Your task to perform on an android device: Search for sony triple a on newegg, select the first entry, and add it to the cart. Image 0: 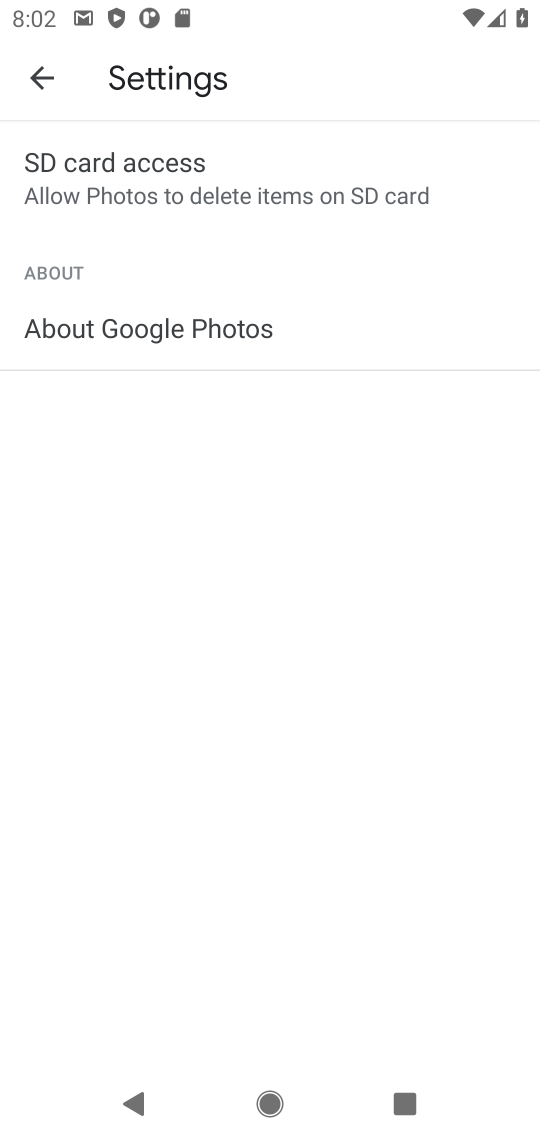
Step 0: click (365, 893)
Your task to perform on an android device: Search for sony triple a on newegg, select the first entry, and add it to the cart. Image 1: 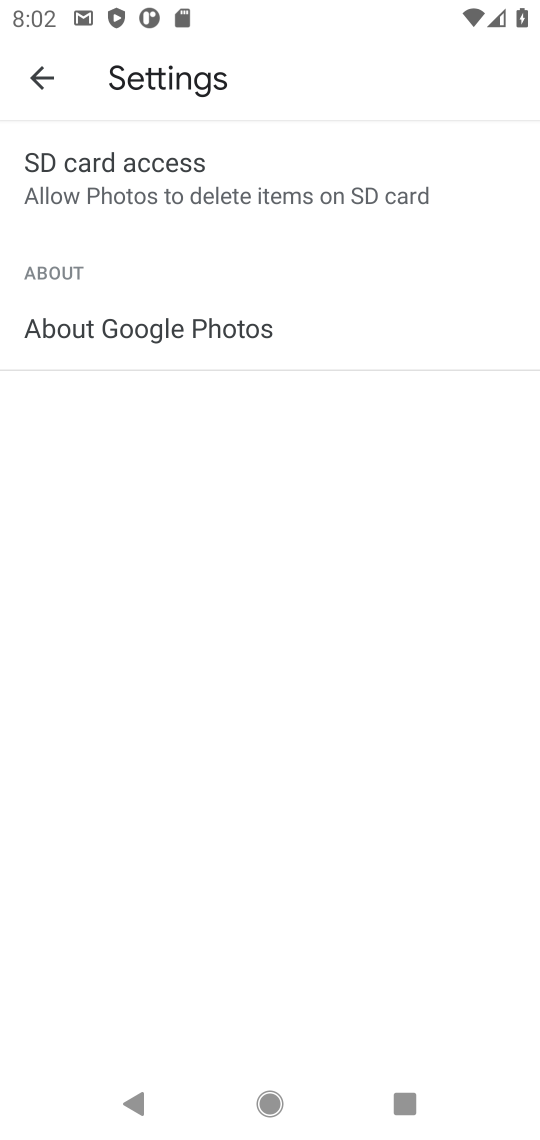
Step 1: press home button
Your task to perform on an android device: Search for sony triple a on newegg, select the first entry, and add it to the cart. Image 2: 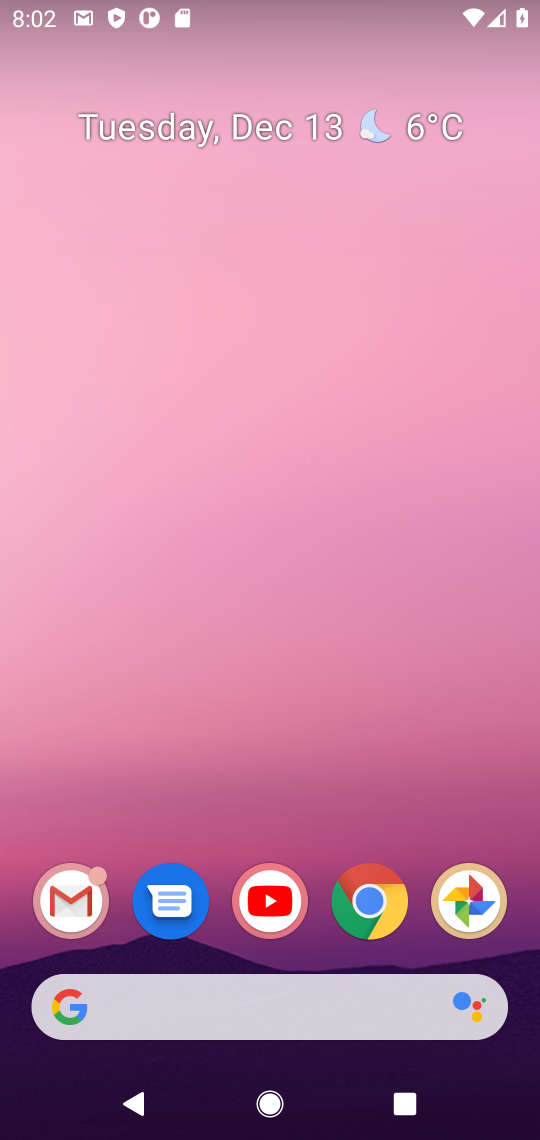
Step 2: click (374, 906)
Your task to perform on an android device: Search for sony triple a on newegg, select the first entry, and add it to the cart. Image 3: 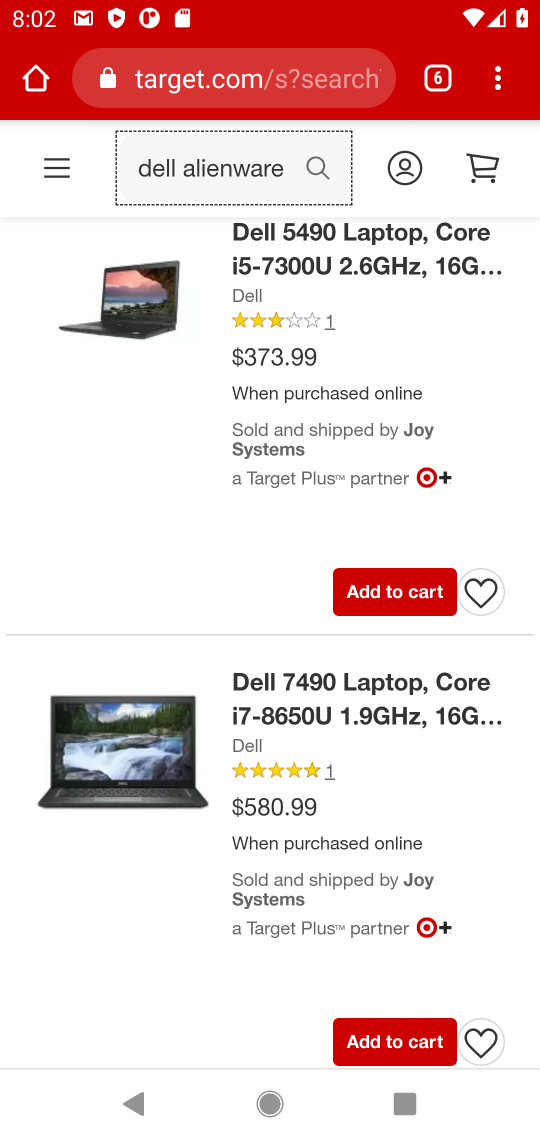
Step 3: click (428, 91)
Your task to perform on an android device: Search for sony triple a on newegg, select the first entry, and add it to the cart. Image 4: 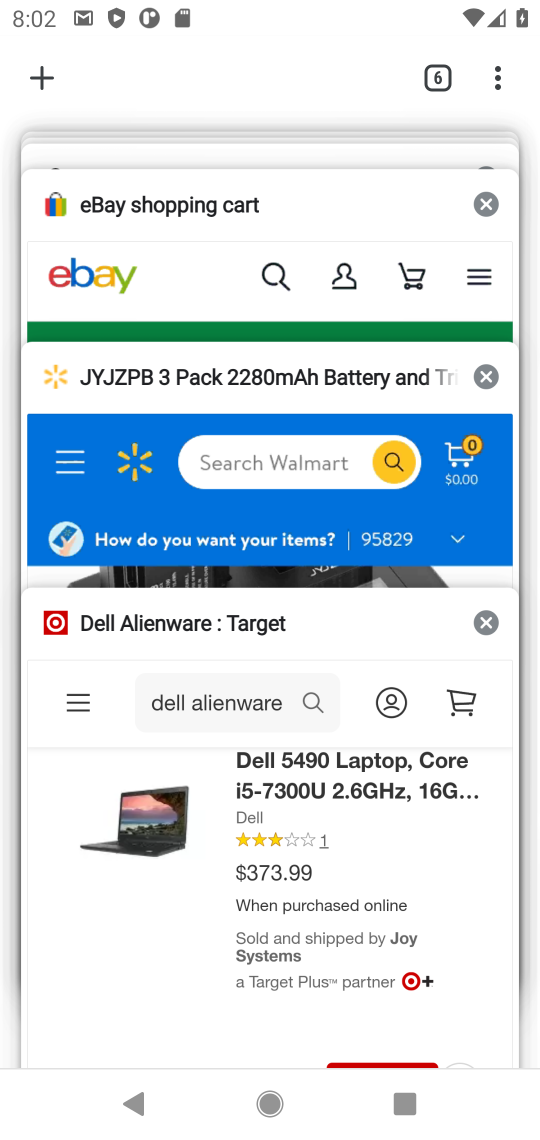
Step 4: drag from (247, 152) to (153, 401)
Your task to perform on an android device: Search for sony triple a on newegg, select the first entry, and add it to the cart. Image 5: 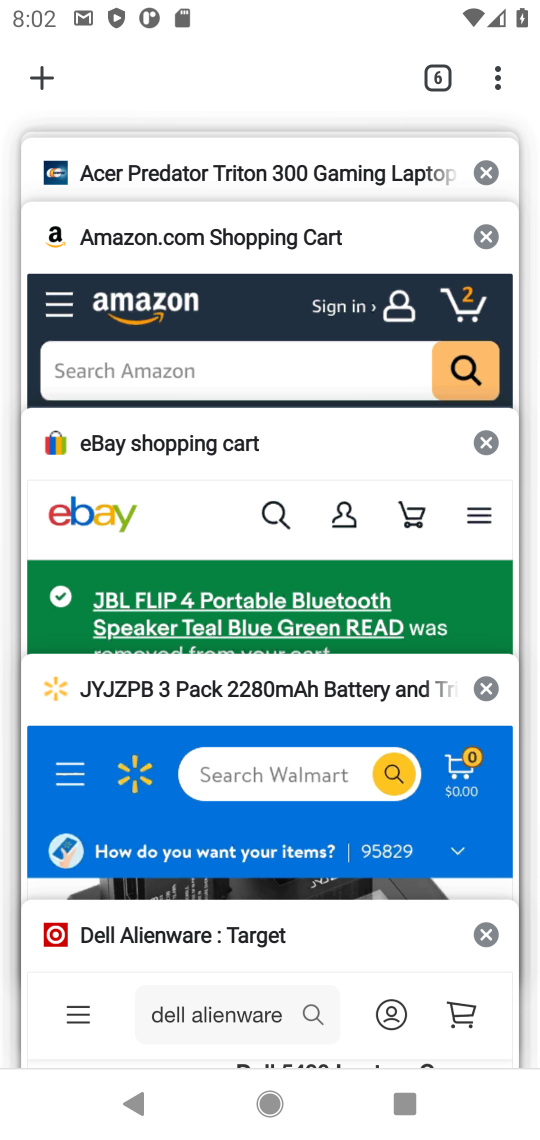
Step 5: click (280, 172)
Your task to perform on an android device: Search for sony triple a on newegg, select the first entry, and add it to the cart. Image 6: 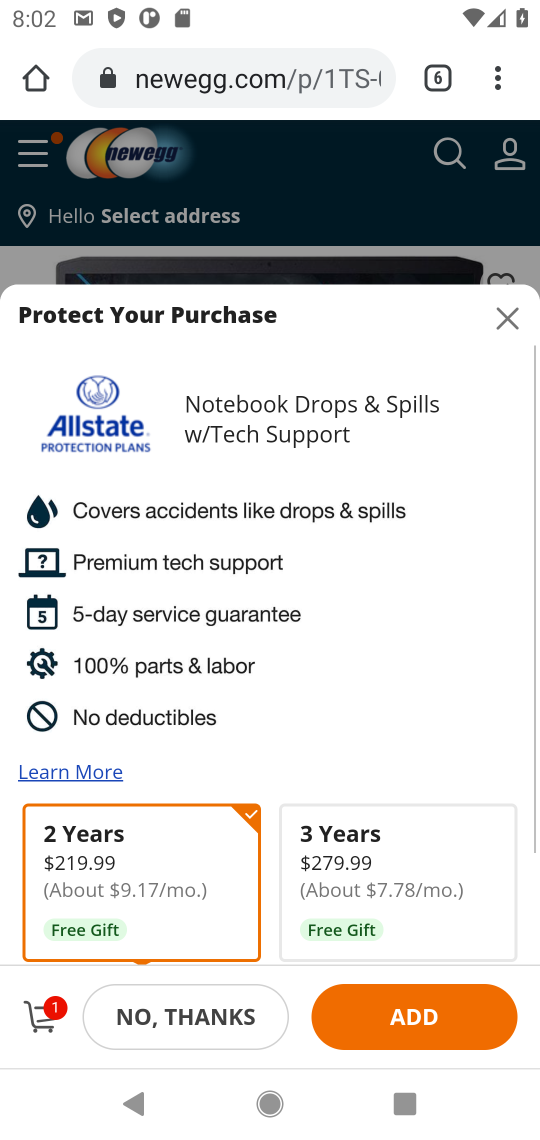
Step 6: click (180, 1021)
Your task to perform on an android device: Search for sony triple a on newegg, select the first entry, and add it to the cart. Image 7: 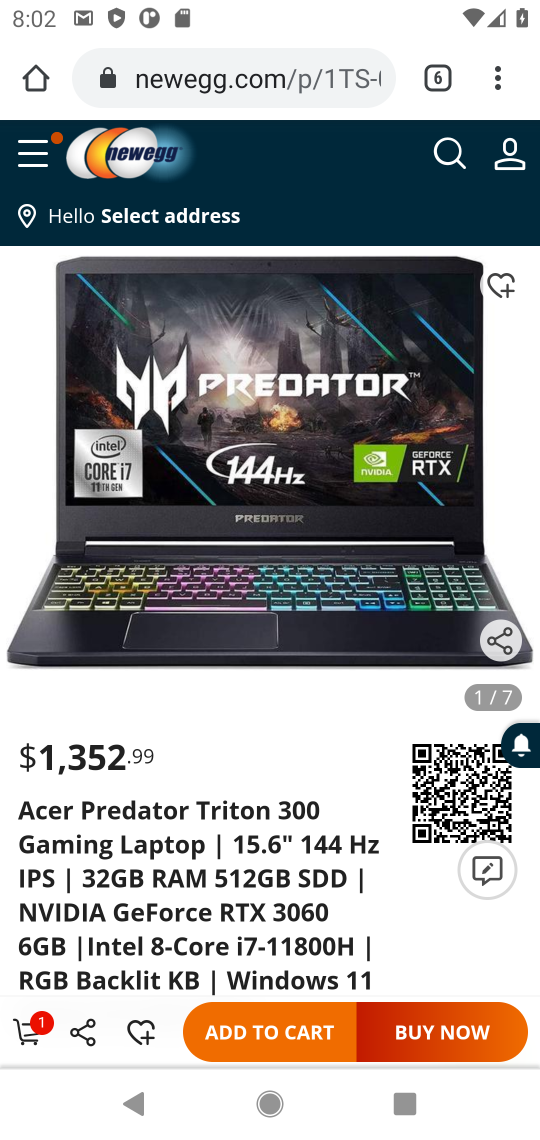
Step 7: click (450, 155)
Your task to perform on an android device: Search for sony triple a on newegg, select the first entry, and add it to the cart. Image 8: 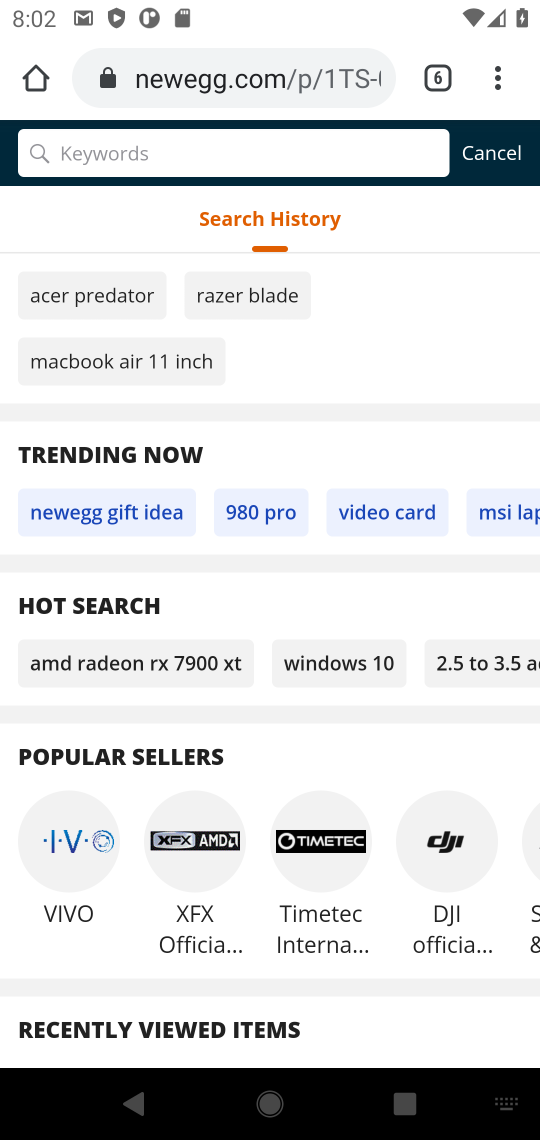
Step 8: type "sony triple a batteries"
Your task to perform on an android device: Search for sony triple a on newegg, select the first entry, and add it to the cart. Image 9: 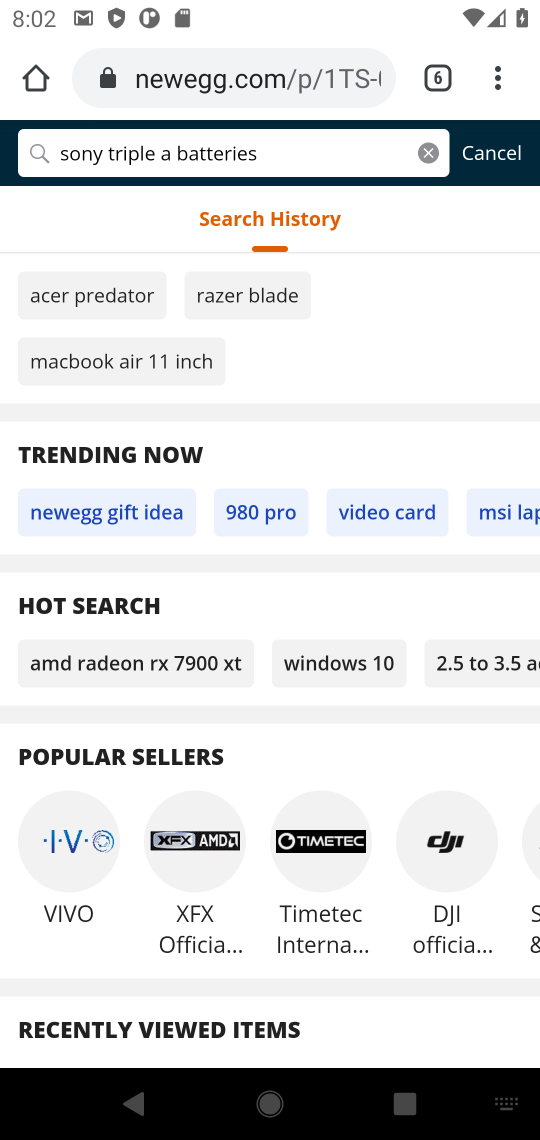
Step 9: press enter
Your task to perform on an android device: Search for sony triple a on newegg, select the first entry, and add it to the cart. Image 10: 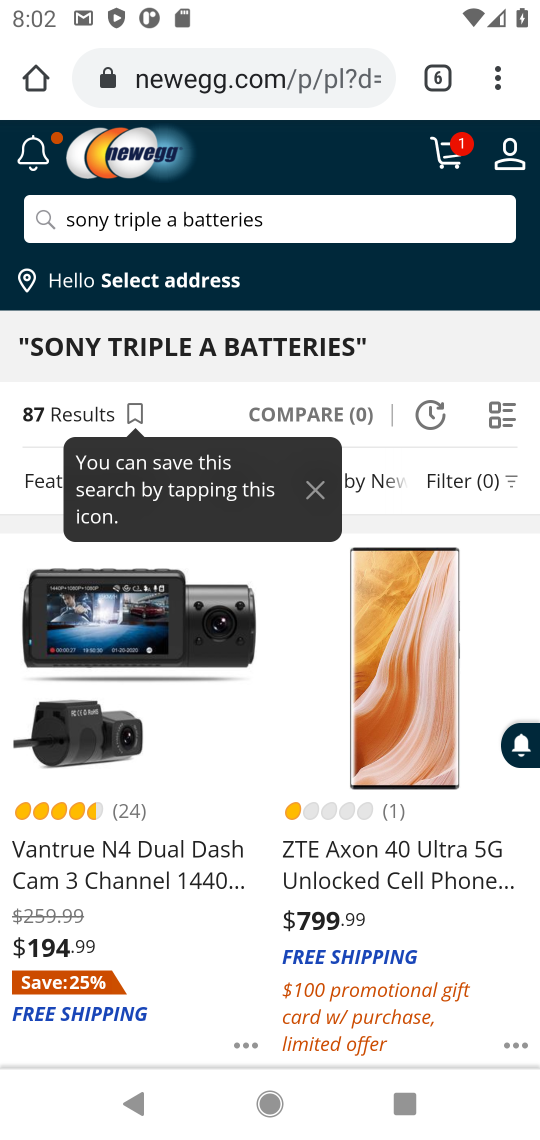
Step 10: task complete